Your task to perform on an android device: turn pop-ups off in chrome Image 0: 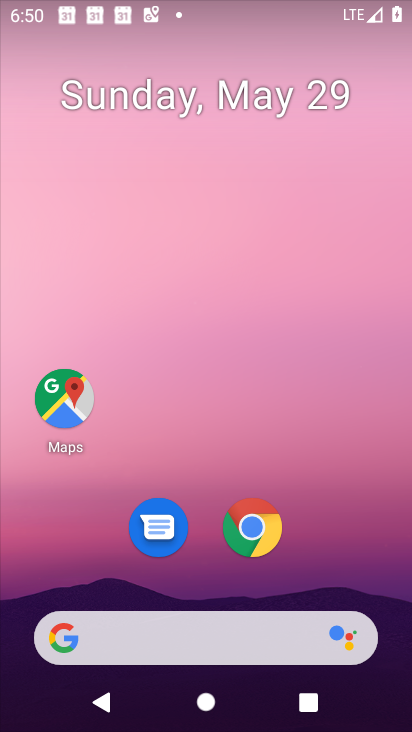
Step 0: drag from (385, 623) to (309, 42)
Your task to perform on an android device: turn pop-ups off in chrome Image 1: 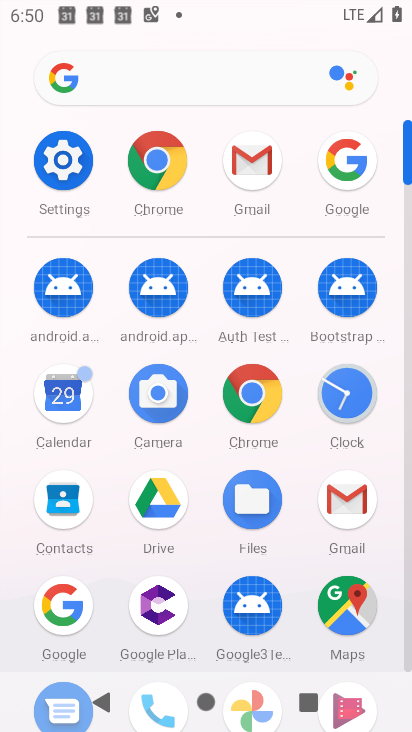
Step 1: click (168, 175)
Your task to perform on an android device: turn pop-ups off in chrome Image 2: 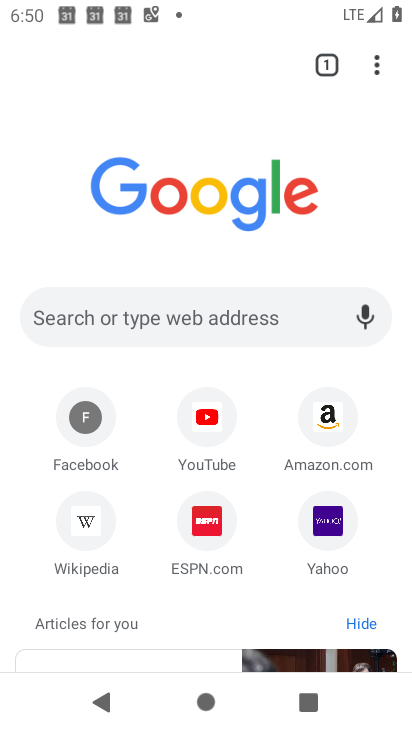
Step 2: click (373, 55)
Your task to perform on an android device: turn pop-ups off in chrome Image 3: 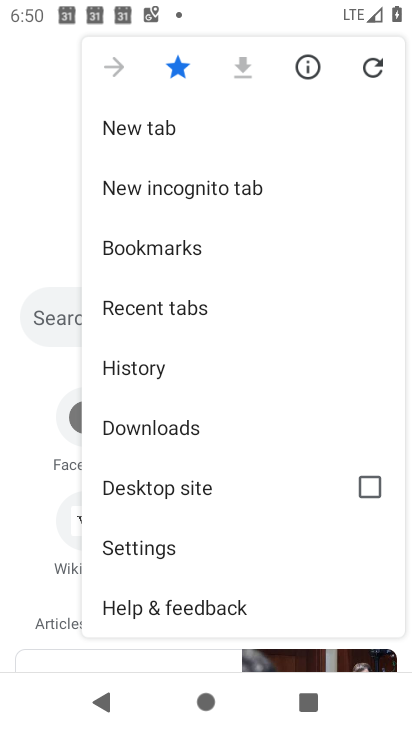
Step 3: click (186, 553)
Your task to perform on an android device: turn pop-ups off in chrome Image 4: 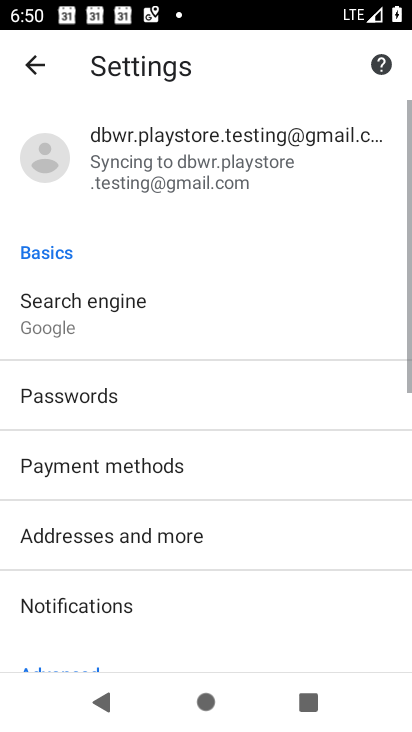
Step 4: drag from (186, 553) to (172, 111)
Your task to perform on an android device: turn pop-ups off in chrome Image 5: 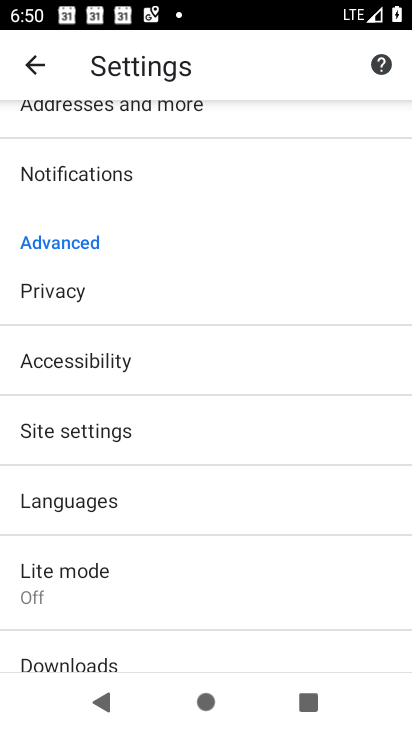
Step 5: click (156, 426)
Your task to perform on an android device: turn pop-ups off in chrome Image 6: 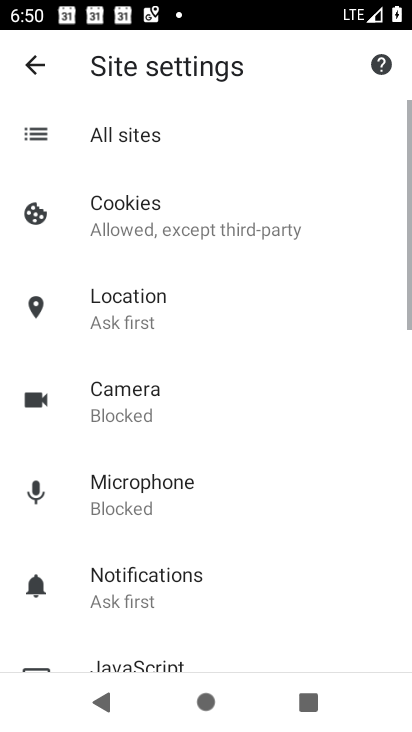
Step 6: drag from (195, 605) to (220, 129)
Your task to perform on an android device: turn pop-ups off in chrome Image 7: 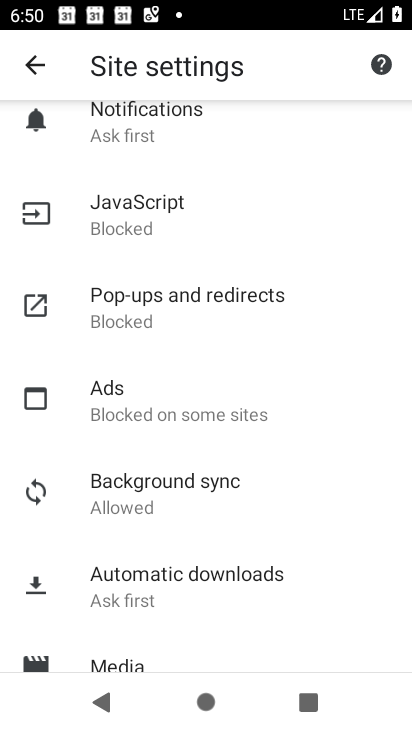
Step 7: click (218, 312)
Your task to perform on an android device: turn pop-ups off in chrome Image 8: 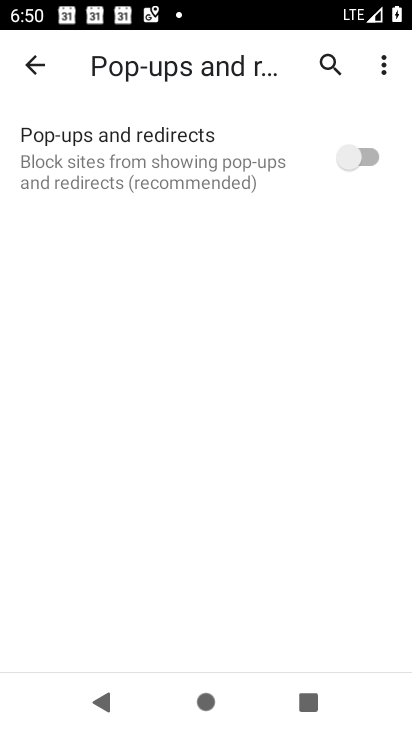
Step 8: task complete